Your task to perform on an android device: find photos in the google photos app Image 0: 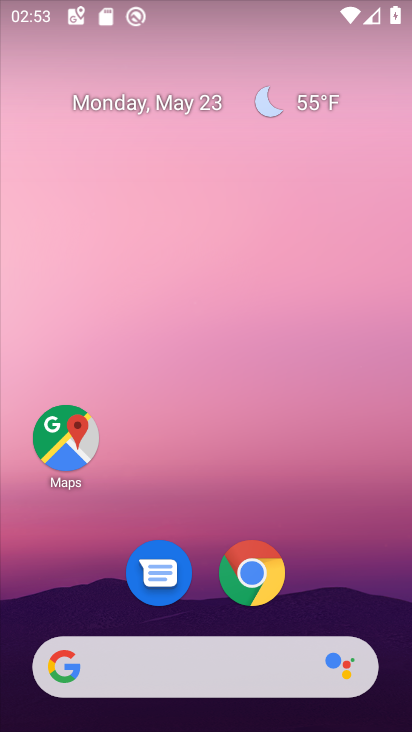
Step 0: click (256, 558)
Your task to perform on an android device: find photos in the google photos app Image 1: 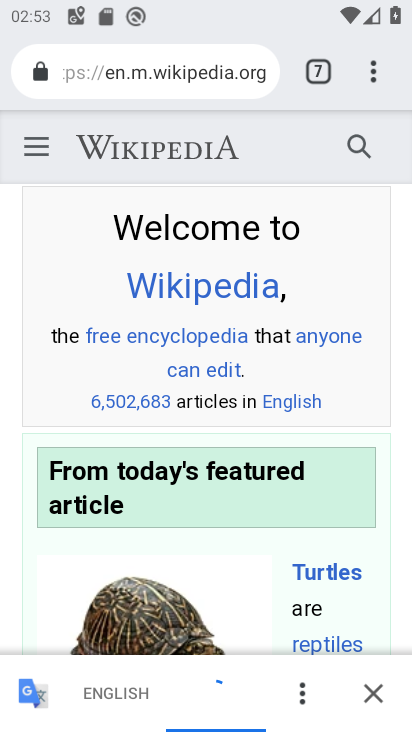
Step 1: press home button
Your task to perform on an android device: find photos in the google photos app Image 2: 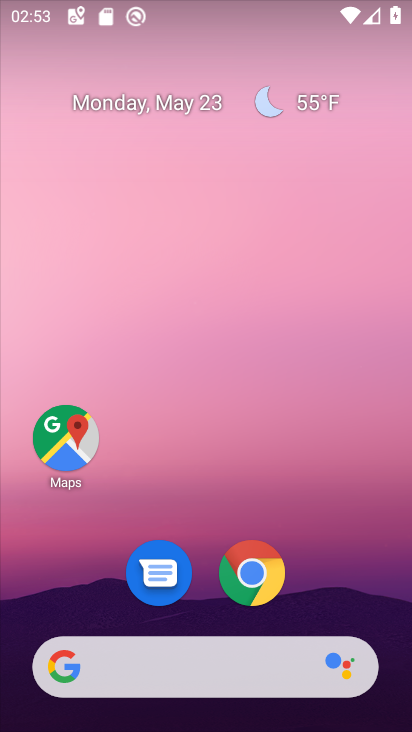
Step 2: drag from (318, 568) to (232, 150)
Your task to perform on an android device: find photos in the google photos app Image 3: 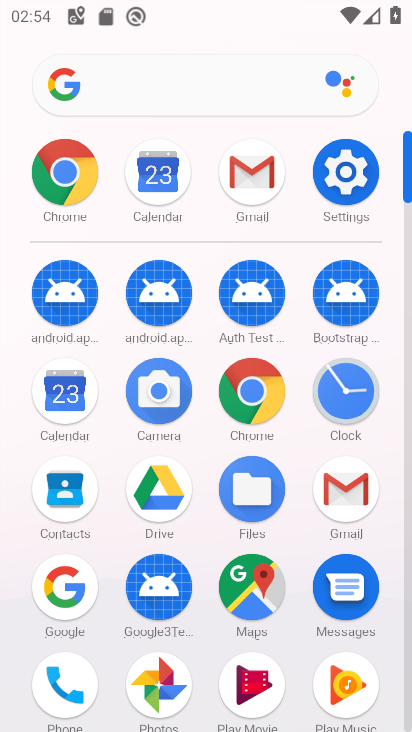
Step 3: click (143, 683)
Your task to perform on an android device: find photos in the google photos app Image 4: 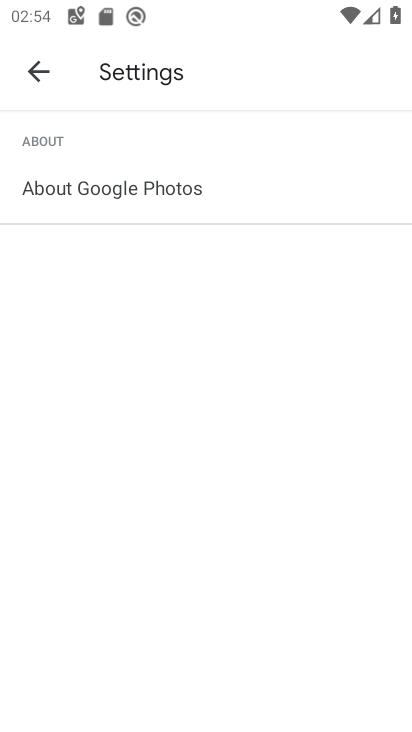
Step 4: press back button
Your task to perform on an android device: find photos in the google photos app Image 5: 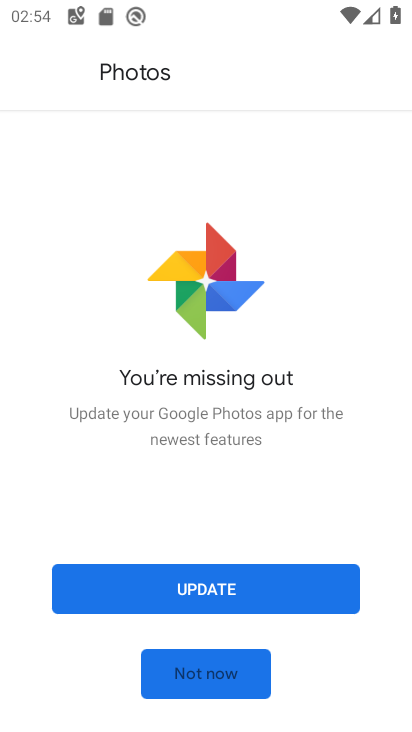
Step 5: click (216, 589)
Your task to perform on an android device: find photos in the google photos app Image 6: 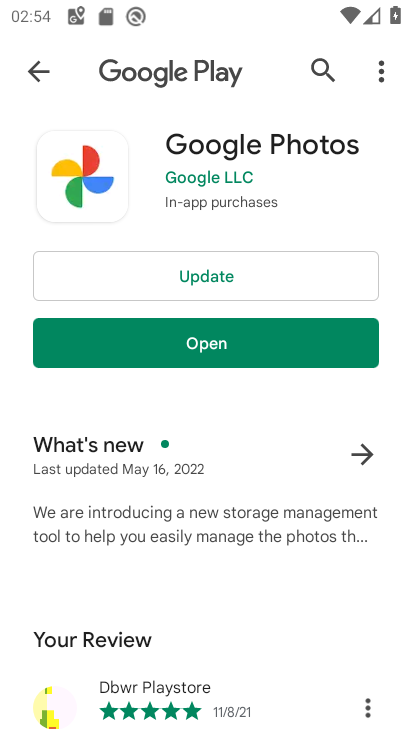
Step 6: click (189, 268)
Your task to perform on an android device: find photos in the google photos app Image 7: 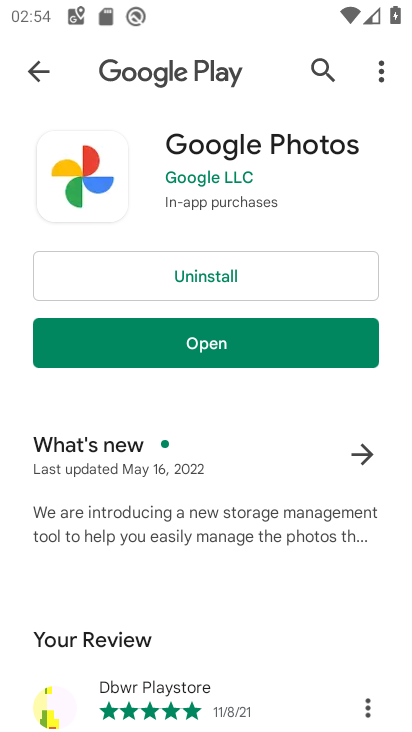
Step 7: click (172, 355)
Your task to perform on an android device: find photos in the google photos app Image 8: 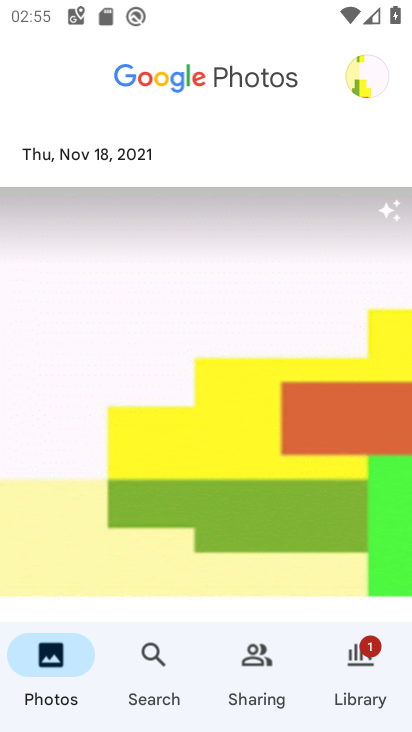
Step 8: task complete